Your task to perform on an android device: How much does the HisenseTV cost? Image 0: 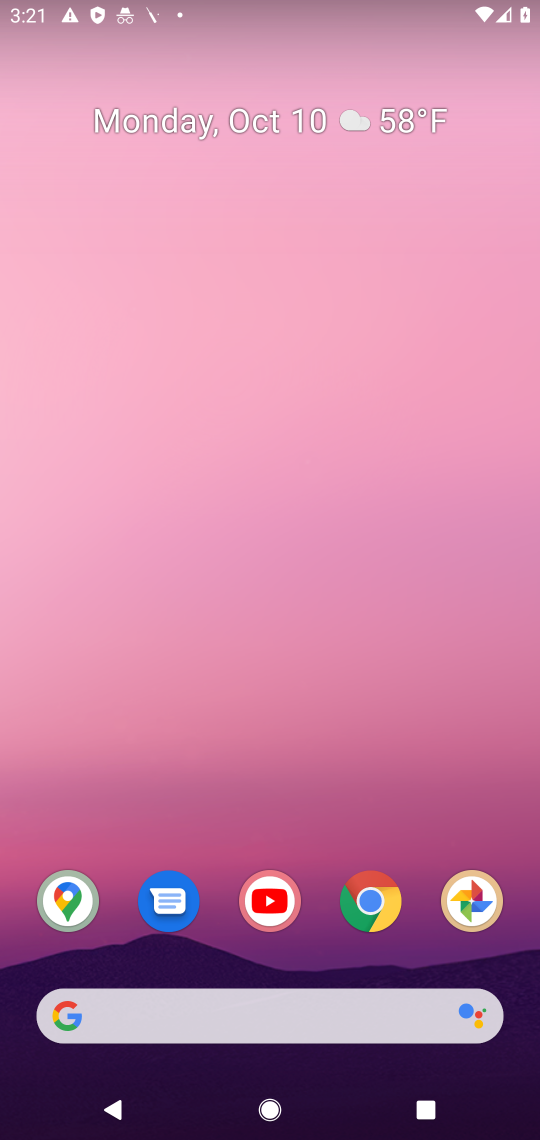
Step 0: drag from (343, 937) to (309, 308)
Your task to perform on an android device: How much does the HisenseTV cost? Image 1: 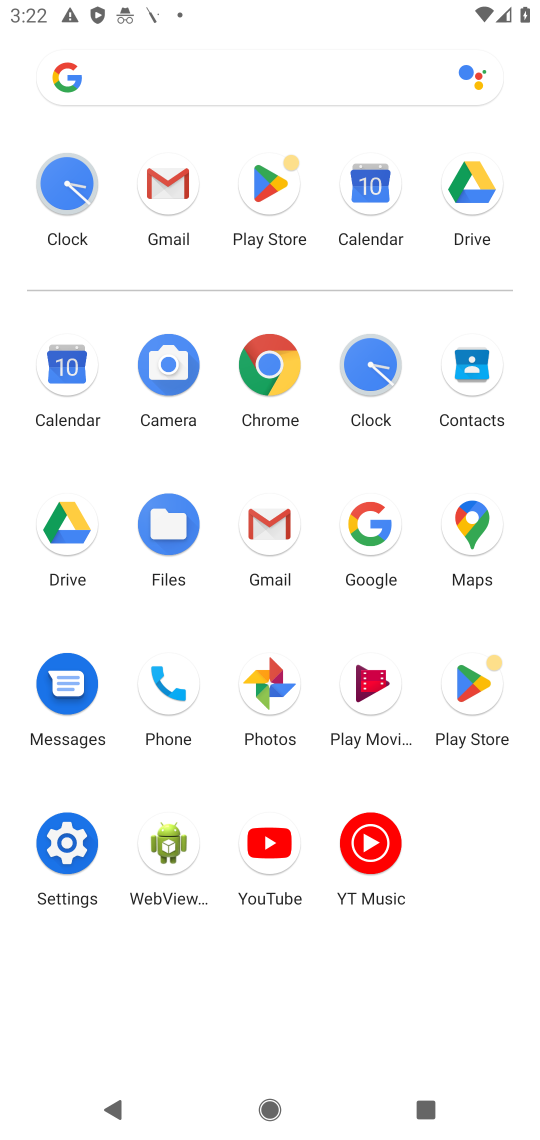
Step 1: click (380, 570)
Your task to perform on an android device: How much does the HisenseTV cost? Image 2: 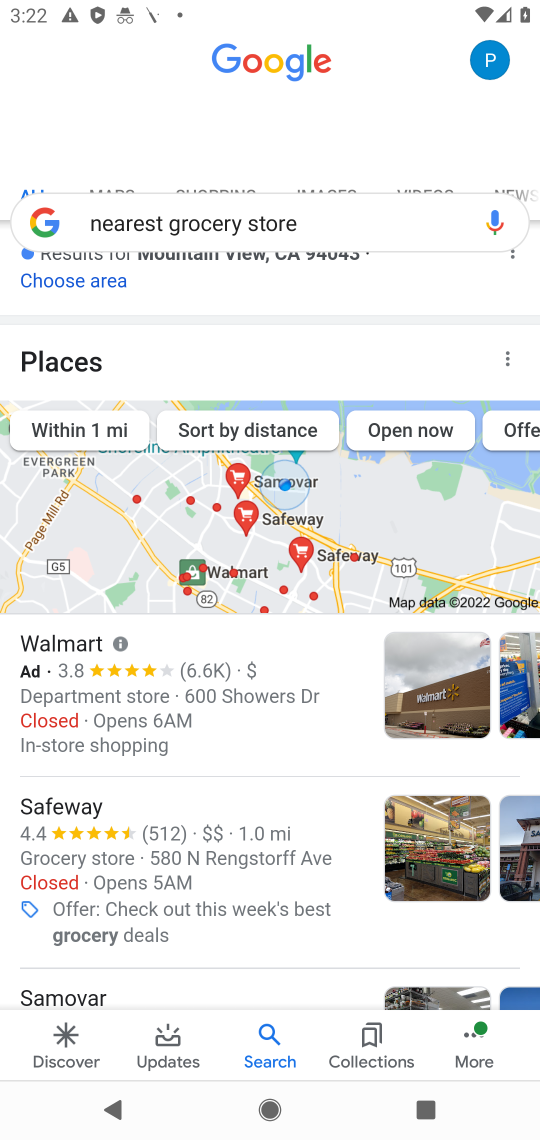
Step 2: click (397, 225)
Your task to perform on an android device: How much does the HisenseTV cost? Image 3: 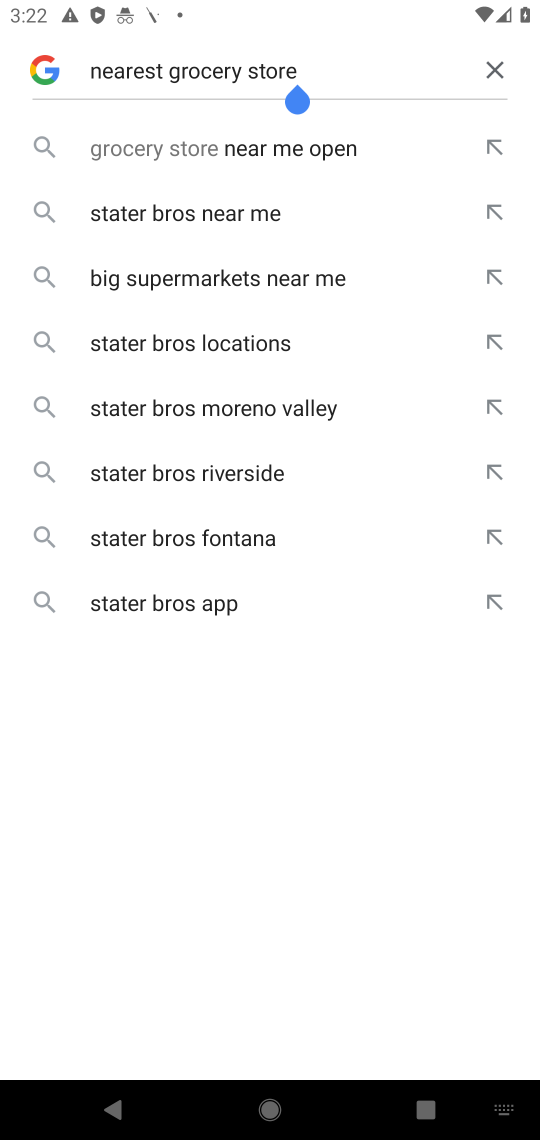
Step 3: click (492, 67)
Your task to perform on an android device: How much does the HisenseTV cost? Image 4: 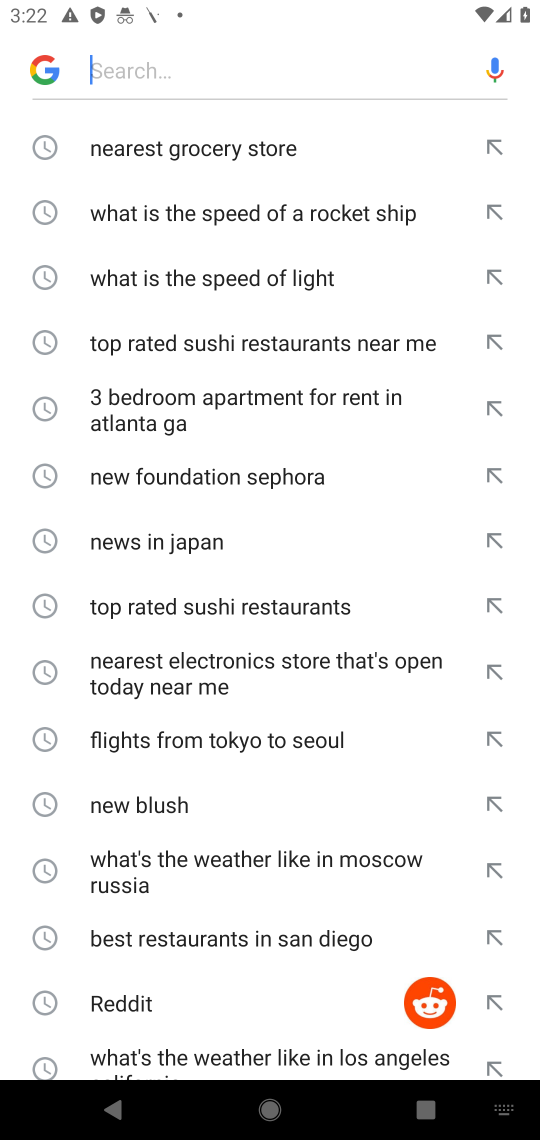
Step 4: type "HisenseTV cost"
Your task to perform on an android device: How much does the HisenseTV cost? Image 5: 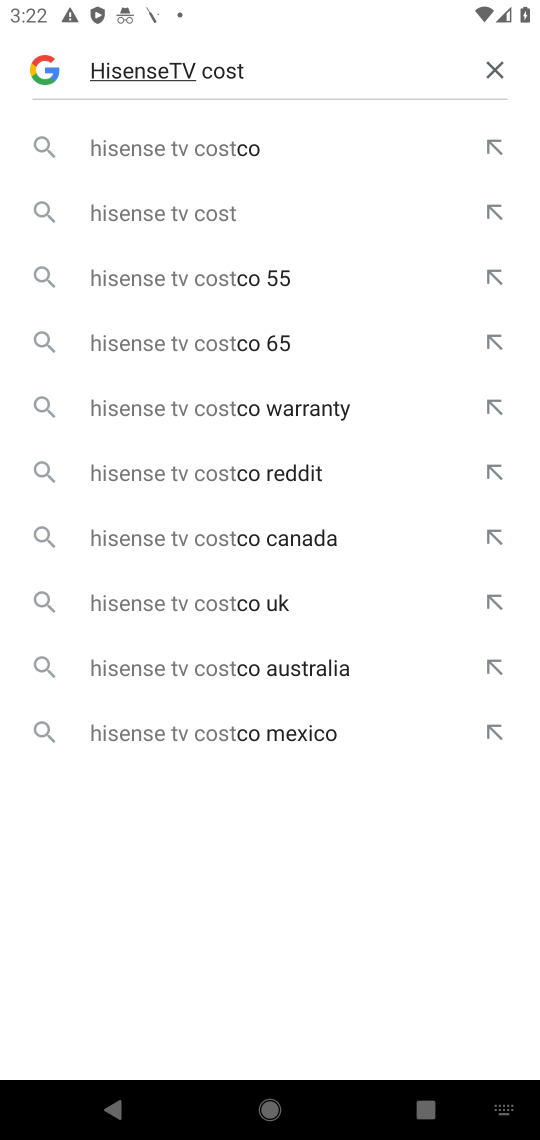
Step 5: type ""
Your task to perform on an android device: How much does the HisenseTV cost? Image 6: 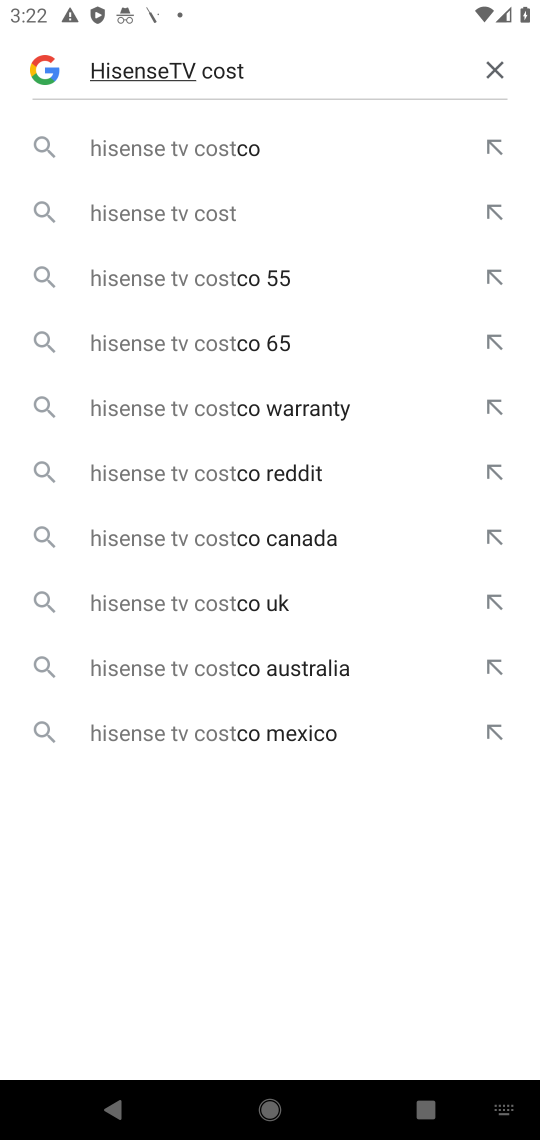
Step 6: click (254, 223)
Your task to perform on an android device: How much does the HisenseTV cost? Image 7: 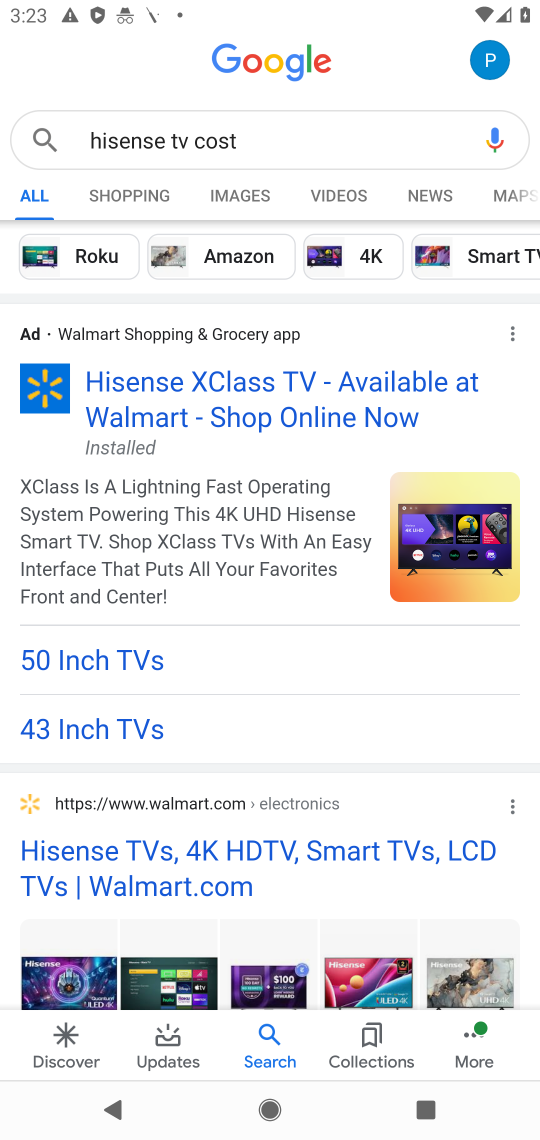
Step 7: task complete